Your task to perform on an android device: Open calendar and show me the fourth week of next month Image 0: 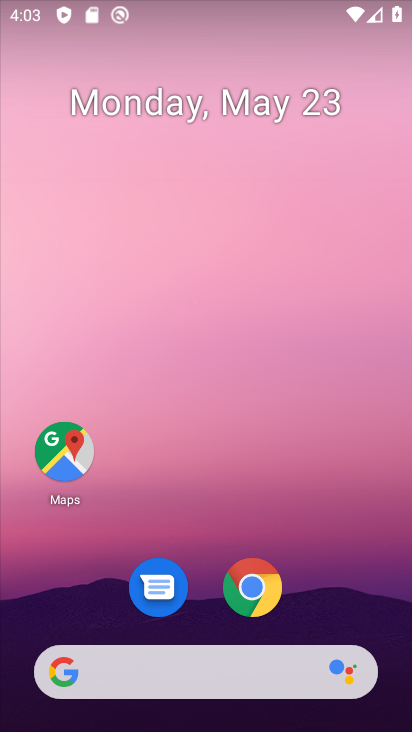
Step 0: drag from (203, 606) to (203, 115)
Your task to perform on an android device: Open calendar and show me the fourth week of next month Image 1: 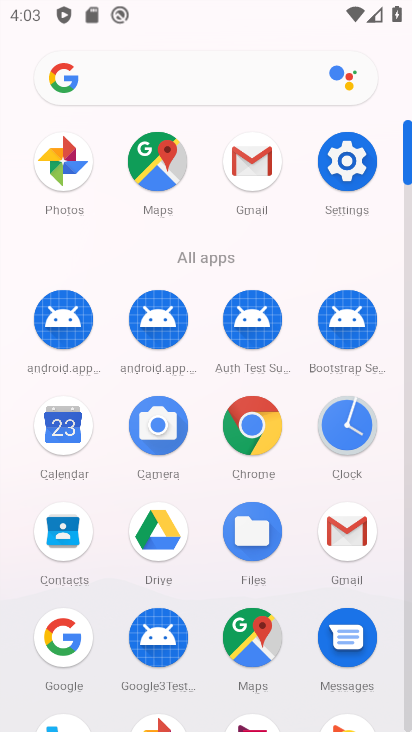
Step 1: click (81, 411)
Your task to perform on an android device: Open calendar and show me the fourth week of next month Image 2: 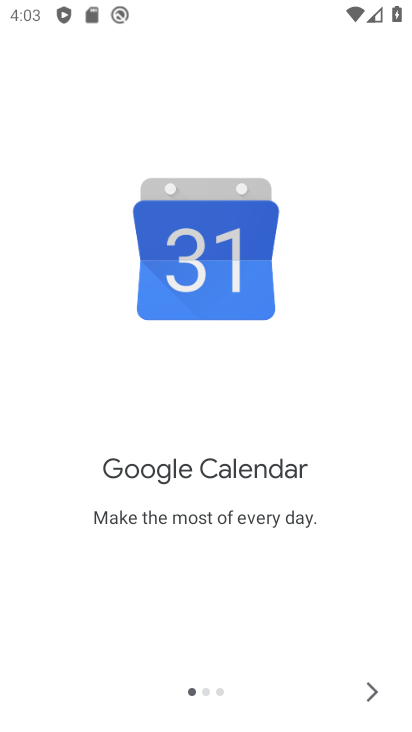
Step 2: click (369, 693)
Your task to perform on an android device: Open calendar and show me the fourth week of next month Image 3: 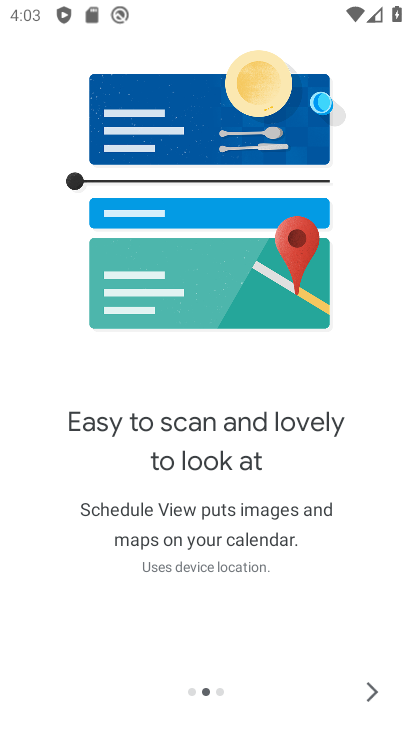
Step 3: click (370, 693)
Your task to perform on an android device: Open calendar and show me the fourth week of next month Image 4: 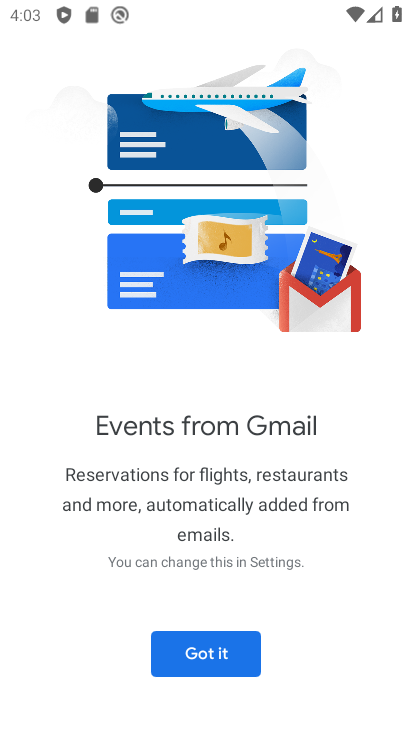
Step 4: click (254, 665)
Your task to perform on an android device: Open calendar and show me the fourth week of next month Image 5: 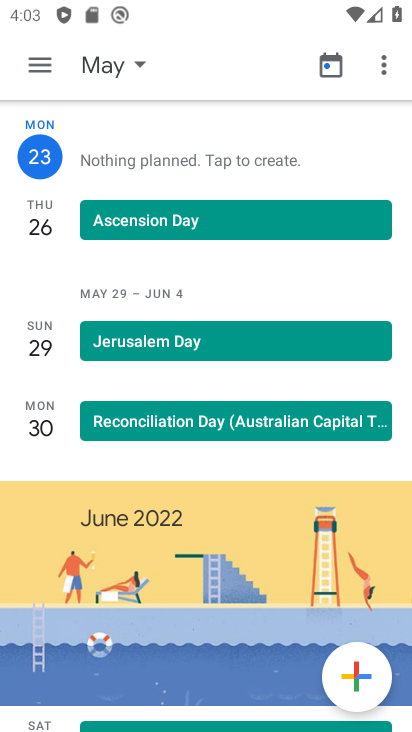
Step 5: click (135, 62)
Your task to perform on an android device: Open calendar and show me the fourth week of next month Image 6: 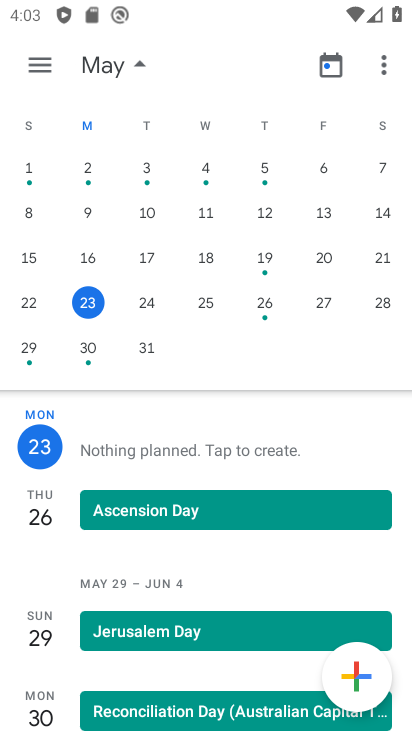
Step 6: drag from (339, 218) to (51, 204)
Your task to perform on an android device: Open calendar and show me the fourth week of next month Image 7: 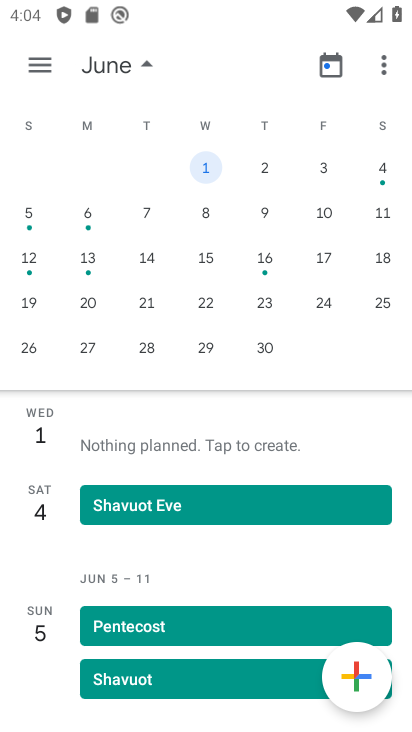
Step 7: click (30, 293)
Your task to perform on an android device: Open calendar and show me the fourth week of next month Image 8: 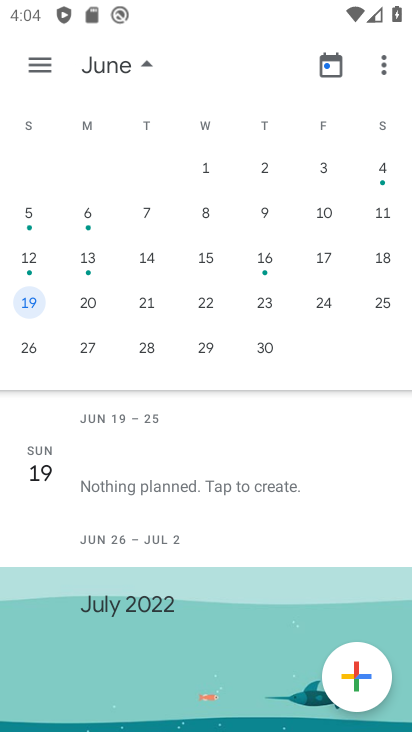
Step 8: task complete